Your task to perform on an android device: Go to CNN.com Image 0: 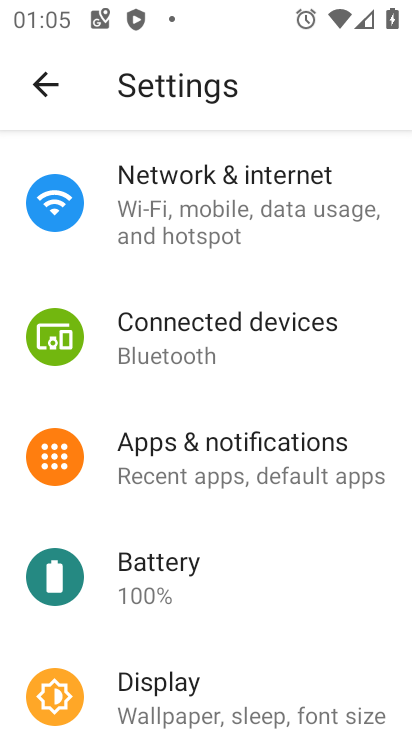
Step 0: press home button
Your task to perform on an android device: Go to CNN.com Image 1: 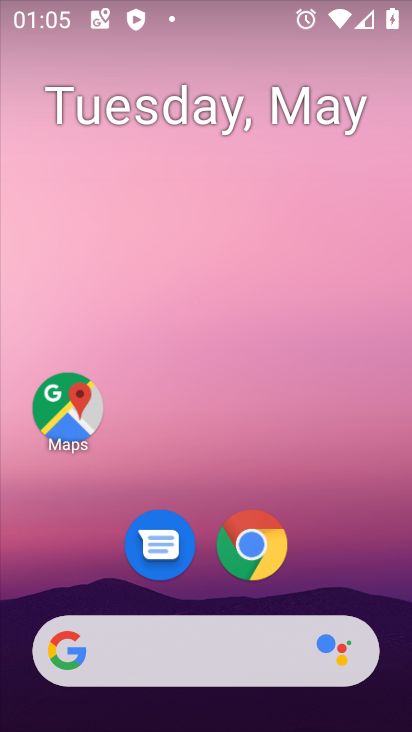
Step 1: click (275, 548)
Your task to perform on an android device: Go to CNN.com Image 2: 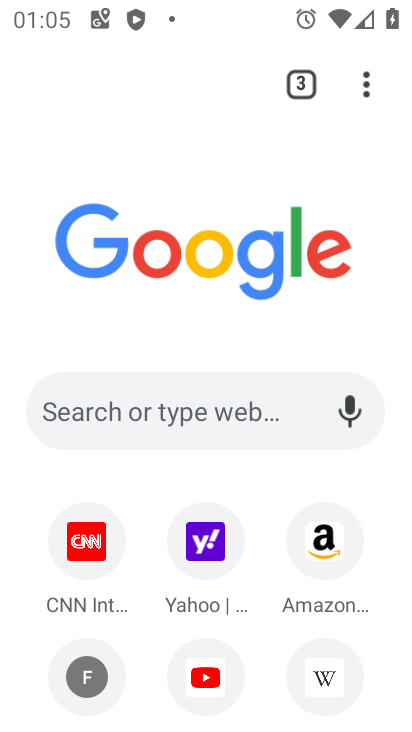
Step 2: click (202, 416)
Your task to perform on an android device: Go to CNN.com Image 3: 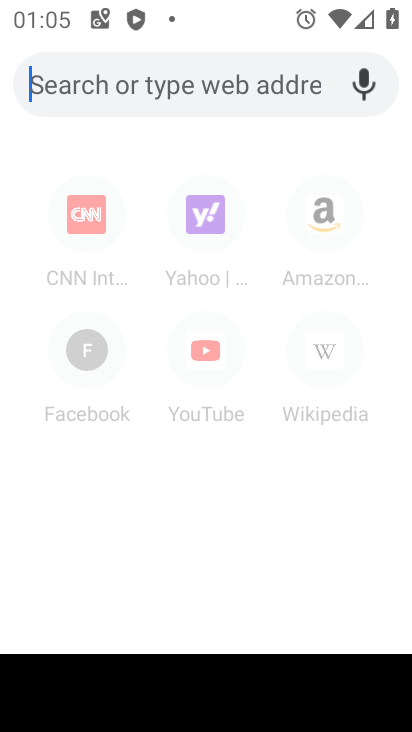
Step 3: type "CNN.com"
Your task to perform on an android device: Go to CNN.com Image 4: 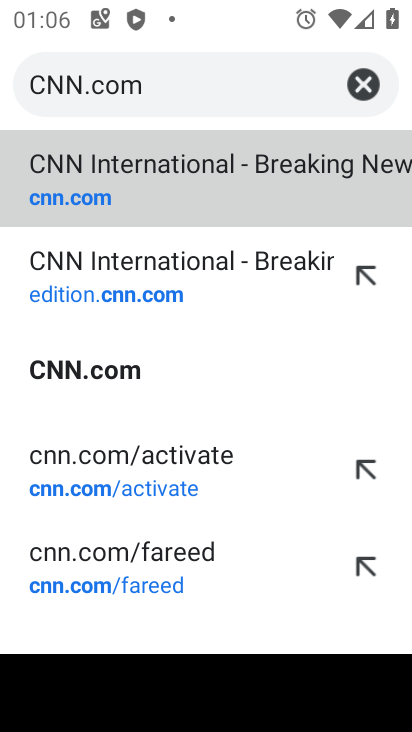
Step 4: click (146, 184)
Your task to perform on an android device: Go to CNN.com Image 5: 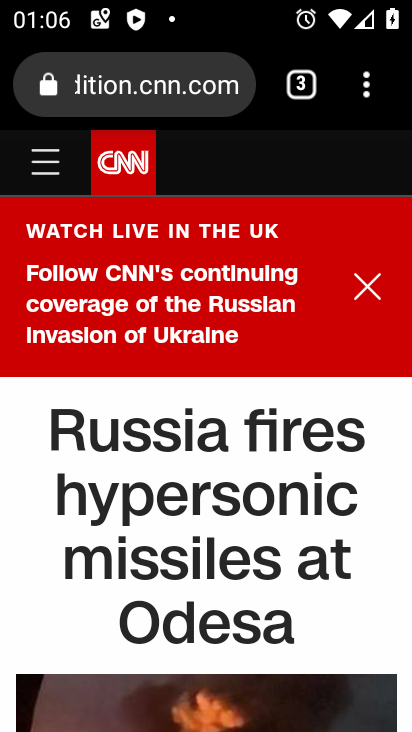
Step 5: task complete